Your task to perform on an android device: Open my contact list Image 0: 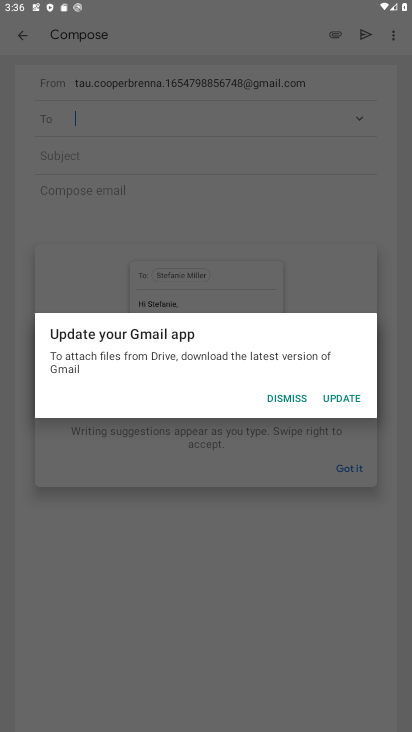
Step 0: press home button
Your task to perform on an android device: Open my contact list Image 1: 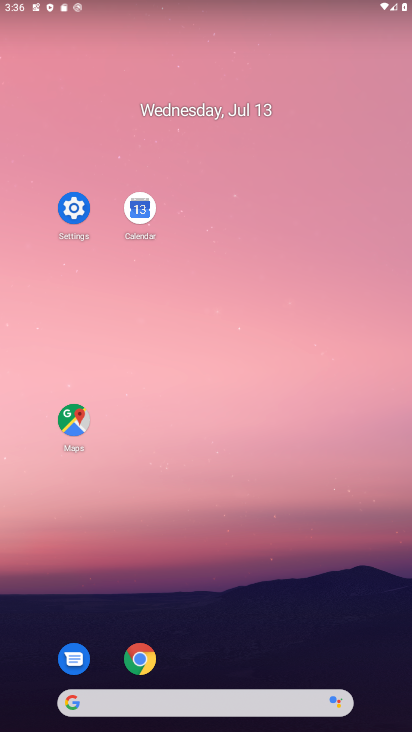
Step 1: drag from (244, 517) to (215, 130)
Your task to perform on an android device: Open my contact list Image 2: 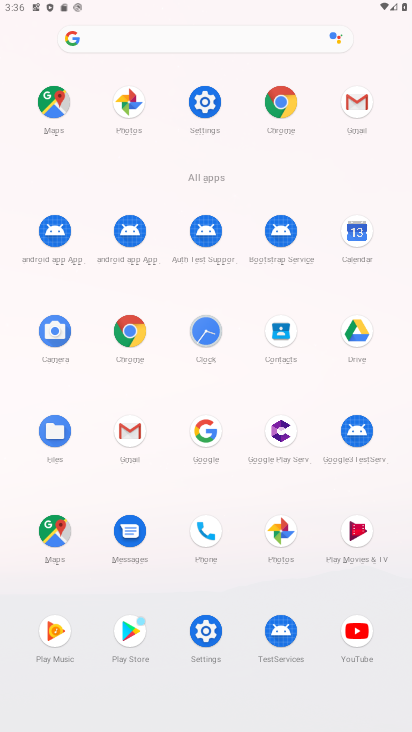
Step 2: click (275, 338)
Your task to perform on an android device: Open my contact list Image 3: 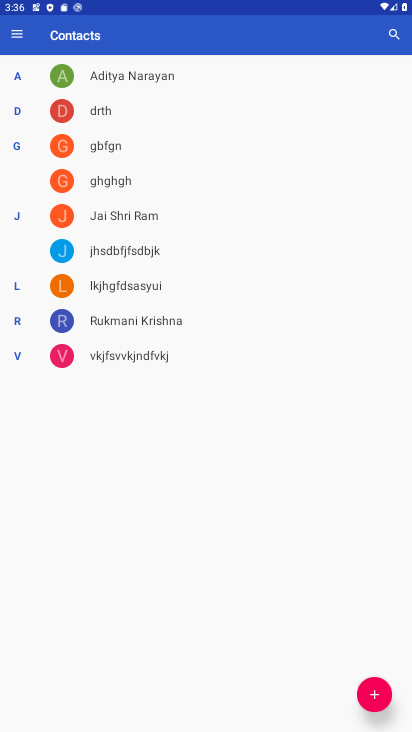
Step 3: task complete